Your task to perform on an android device: What's on my calendar today? Image 0: 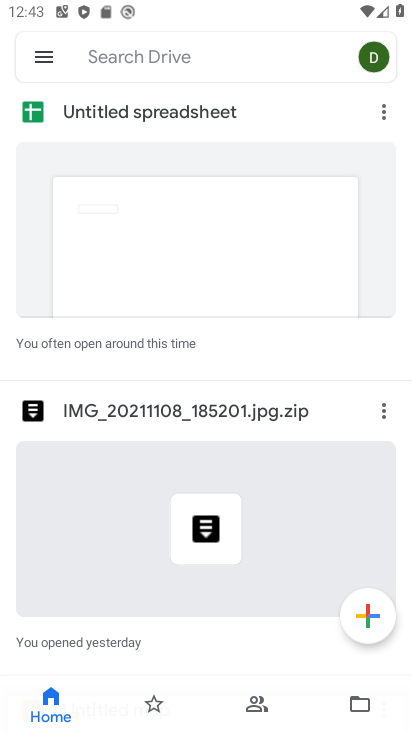
Step 0: task complete